Your task to perform on an android device: Do I have any events this weekend? Image 0: 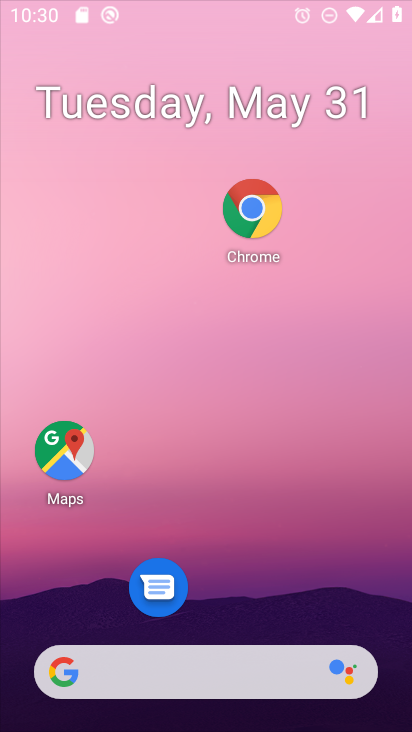
Step 0: press home button
Your task to perform on an android device: Do I have any events this weekend? Image 1: 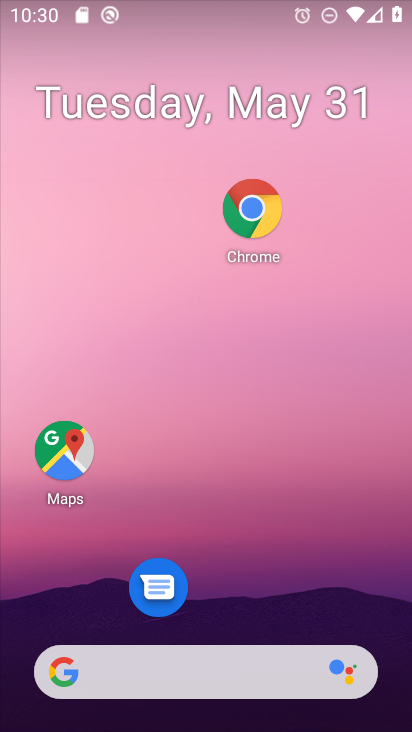
Step 1: drag from (218, 620) to (219, 58)
Your task to perform on an android device: Do I have any events this weekend? Image 2: 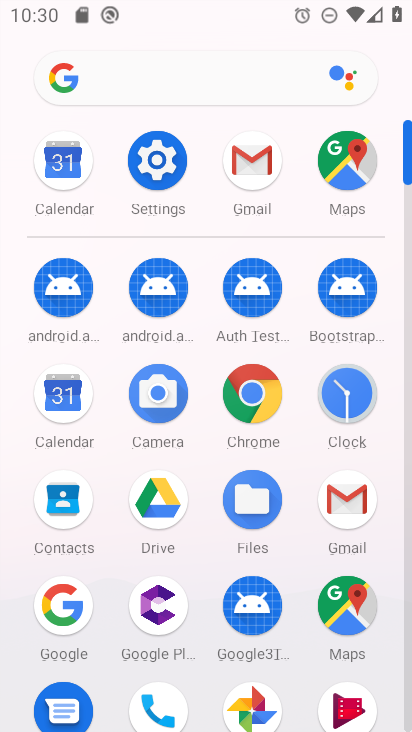
Step 2: click (60, 392)
Your task to perform on an android device: Do I have any events this weekend? Image 3: 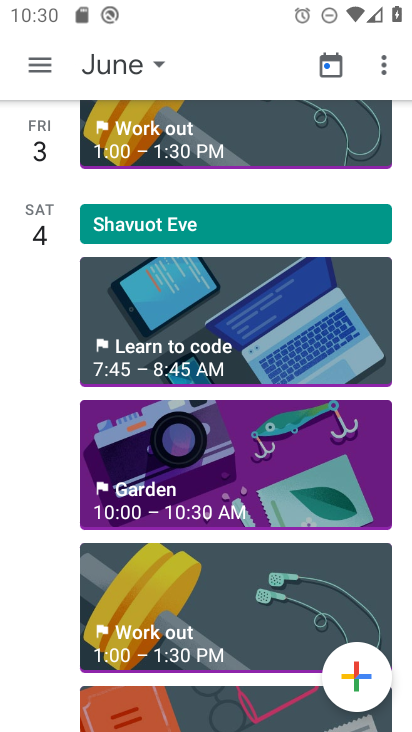
Step 3: task complete